Your task to perform on an android device: refresh tabs in the chrome app Image 0: 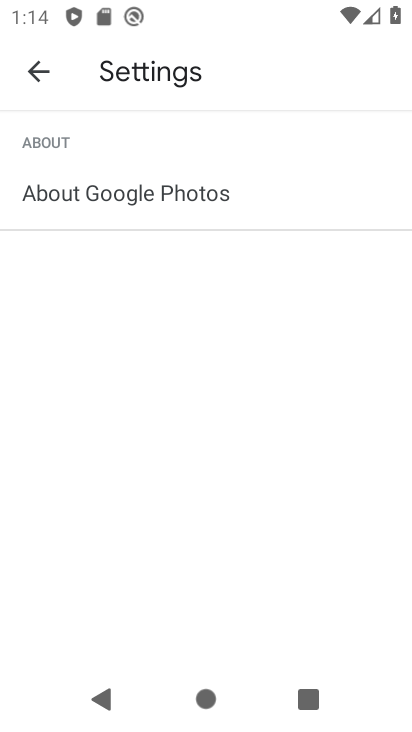
Step 0: press home button
Your task to perform on an android device: refresh tabs in the chrome app Image 1: 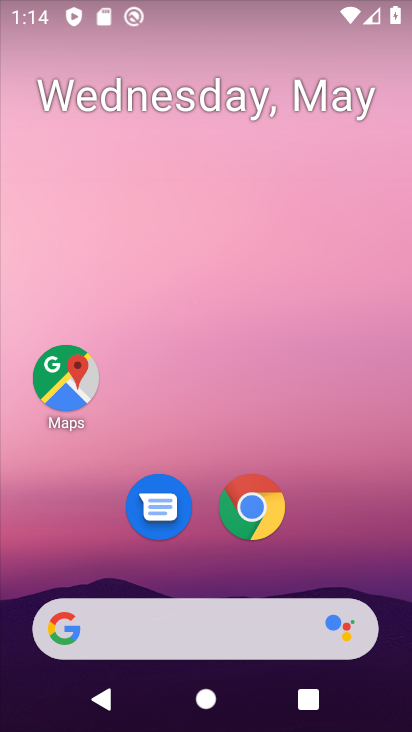
Step 1: click (287, 528)
Your task to perform on an android device: refresh tabs in the chrome app Image 2: 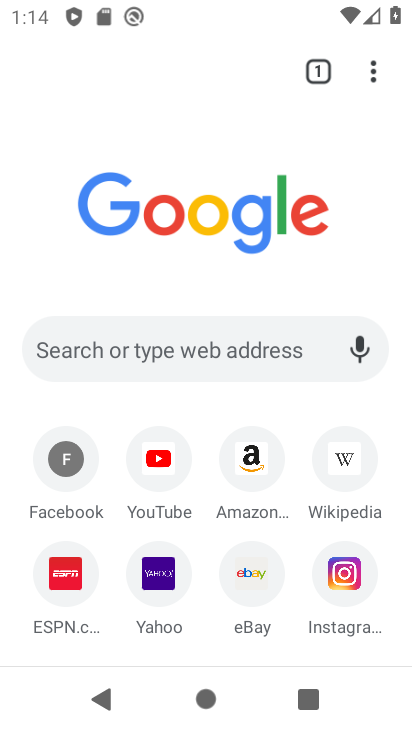
Step 2: click (377, 71)
Your task to perform on an android device: refresh tabs in the chrome app Image 3: 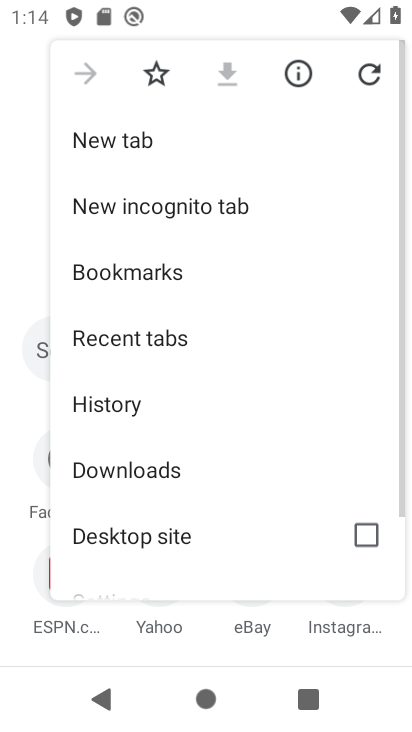
Step 3: click (377, 71)
Your task to perform on an android device: refresh tabs in the chrome app Image 4: 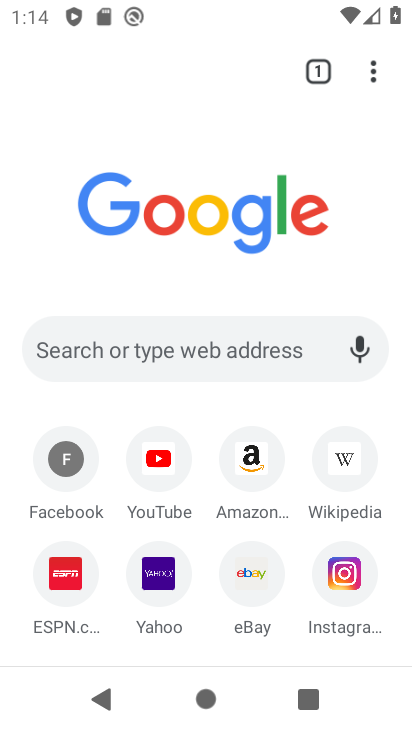
Step 4: task complete